Your task to perform on an android device: manage bookmarks in the chrome app Image 0: 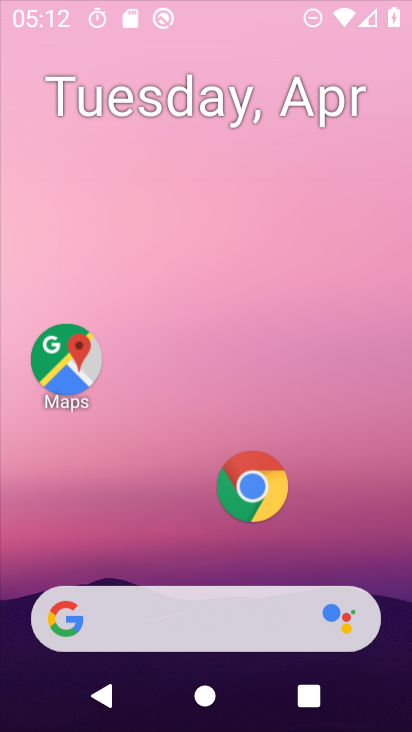
Step 0: drag from (130, 524) to (206, 71)
Your task to perform on an android device: manage bookmarks in the chrome app Image 1: 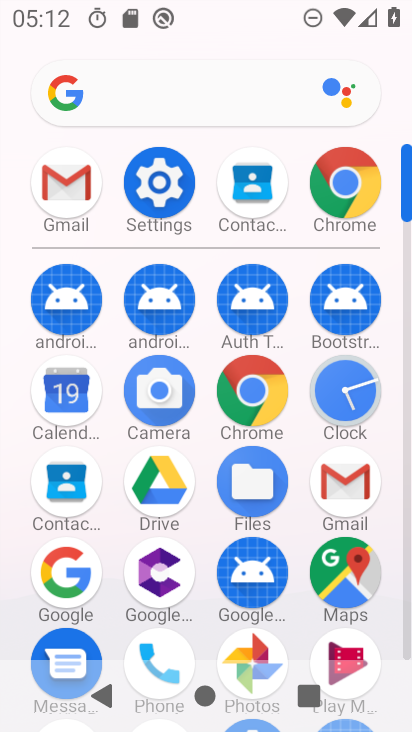
Step 1: click (262, 395)
Your task to perform on an android device: manage bookmarks in the chrome app Image 2: 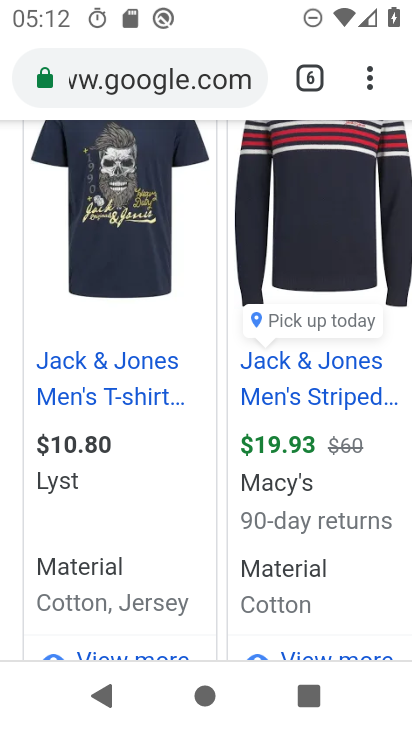
Step 2: drag from (370, 81) to (144, 387)
Your task to perform on an android device: manage bookmarks in the chrome app Image 3: 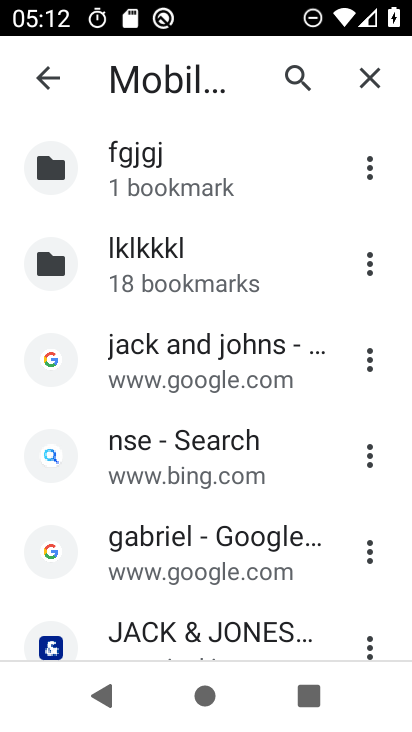
Step 3: click (373, 350)
Your task to perform on an android device: manage bookmarks in the chrome app Image 4: 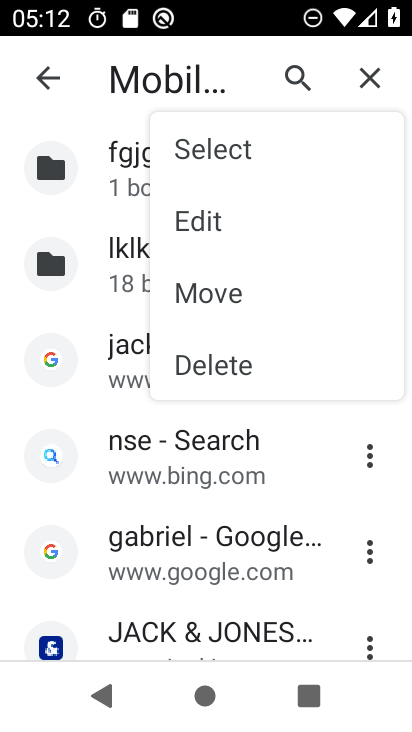
Step 4: click (244, 363)
Your task to perform on an android device: manage bookmarks in the chrome app Image 5: 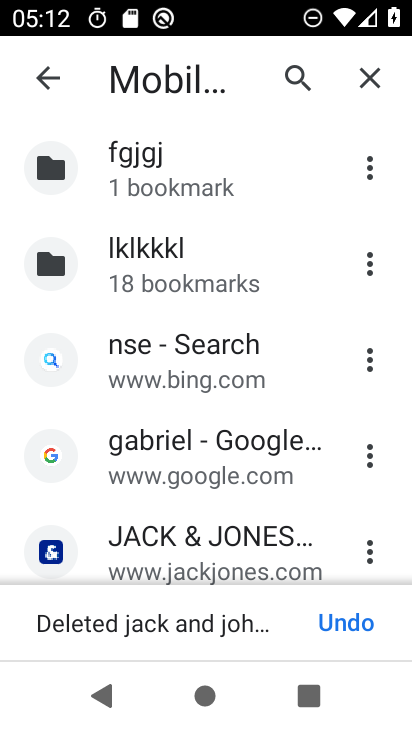
Step 5: task complete